Your task to perform on an android device: turn off sleep mode Image 0: 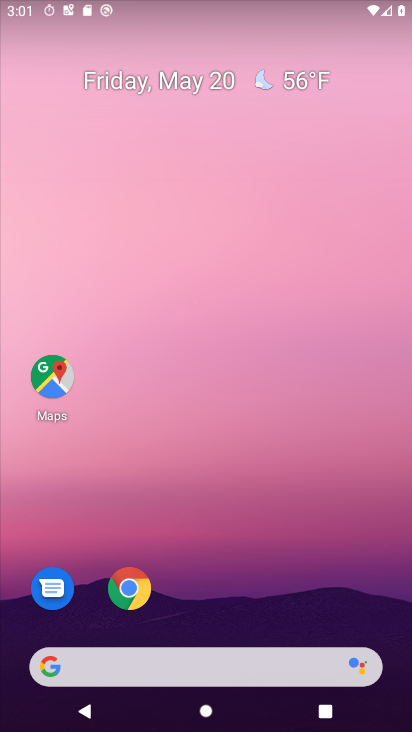
Step 0: press home button
Your task to perform on an android device: turn off sleep mode Image 1: 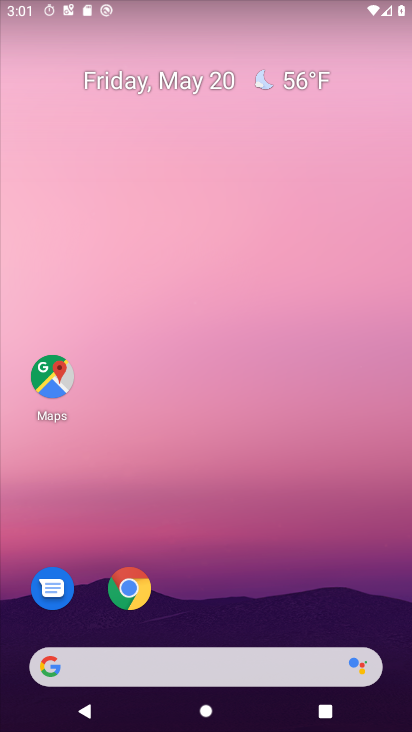
Step 1: drag from (25, 500) to (163, 110)
Your task to perform on an android device: turn off sleep mode Image 2: 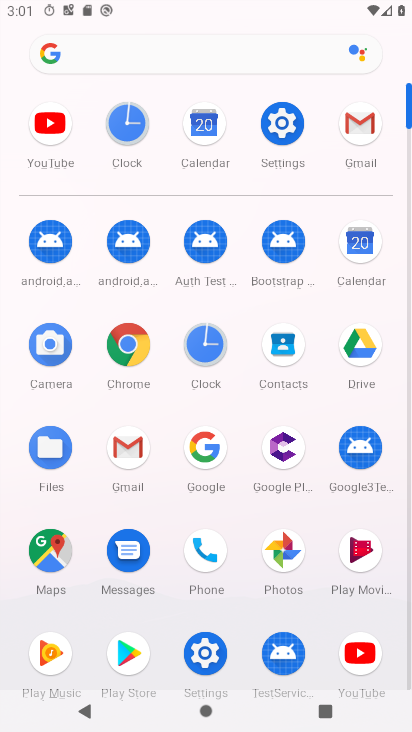
Step 2: click (281, 114)
Your task to perform on an android device: turn off sleep mode Image 3: 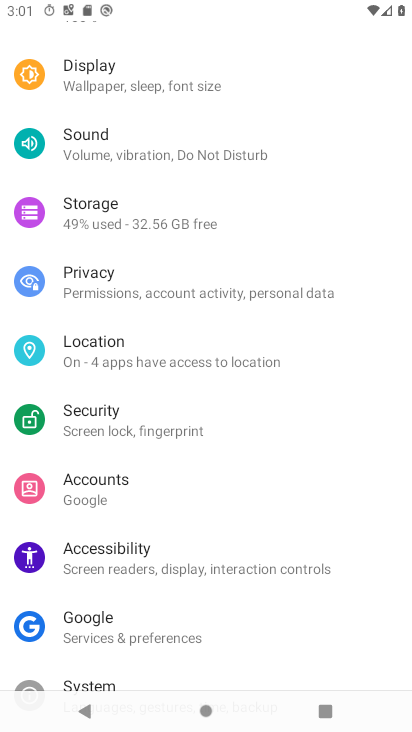
Step 3: task complete